Your task to perform on an android device: turn on data saver in the chrome app Image 0: 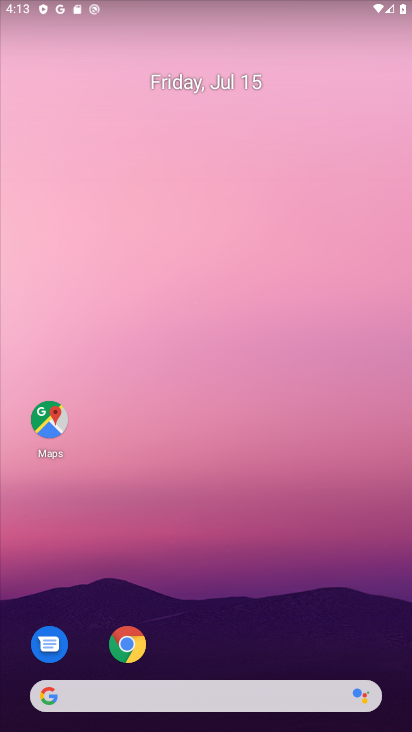
Step 0: click (142, 657)
Your task to perform on an android device: turn on data saver in the chrome app Image 1: 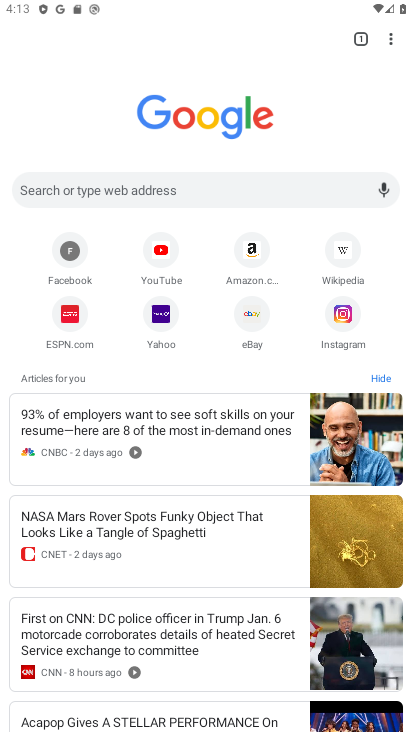
Step 1: click (388, 34)
Your task to perform on an android device: turn on data saver in the chrome app Image 2: 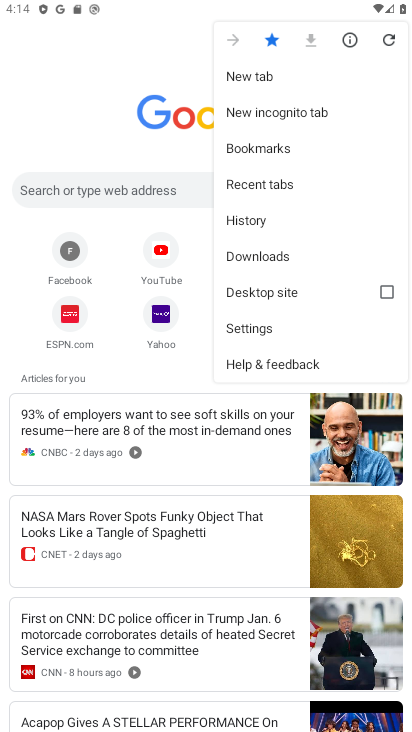
Step 2: click (264, 333)
Your task to perform on an android device: turn on data saver in the chrome app Image 3: 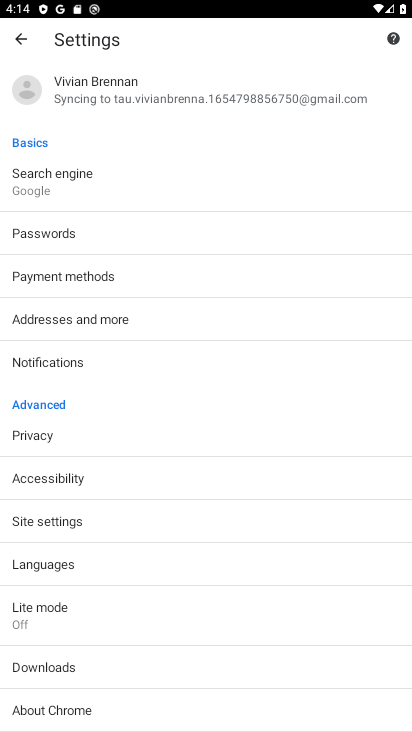
Step 3: click (48, 613)
Your task to perform on an android device: turn on data saver in the chrome app Image 4: 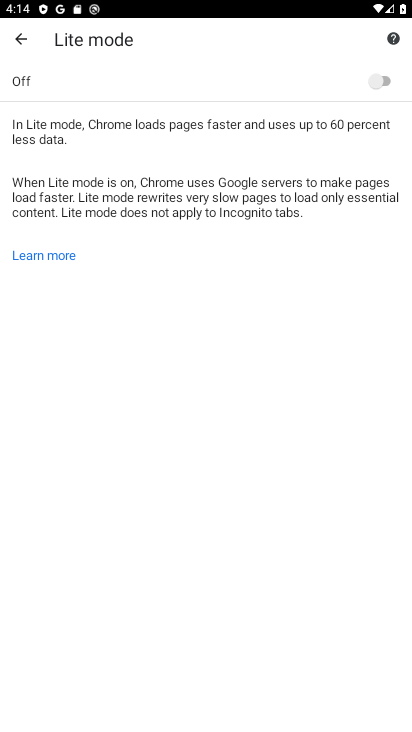
Step 4: click (378, 87)
Your task to perform on an android device: turn on data saver in the chrome app Image 5: 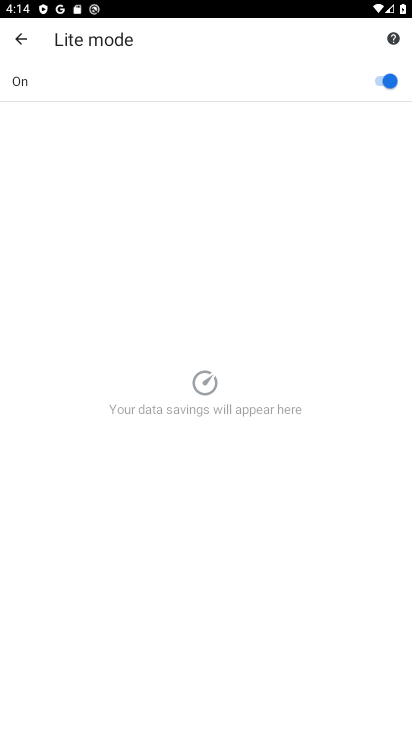
Step 5: task complete